Your task to perform on an android device: open app "Messages" (install if not already installed) and enter user name: "Hersey@inbox.com" and password: "facings" Image 0: 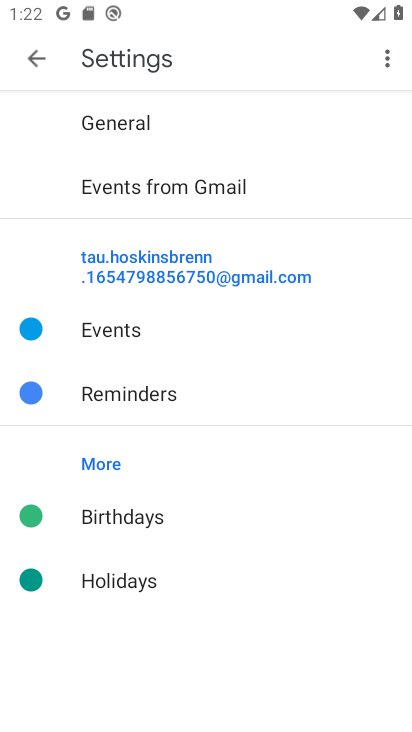
Step 0: press home button
Your task to perform on an android device: open app "Messages" (install if not already installed) and enter user name: "Hersey@inbox.com" and password: "facings" Image 1: 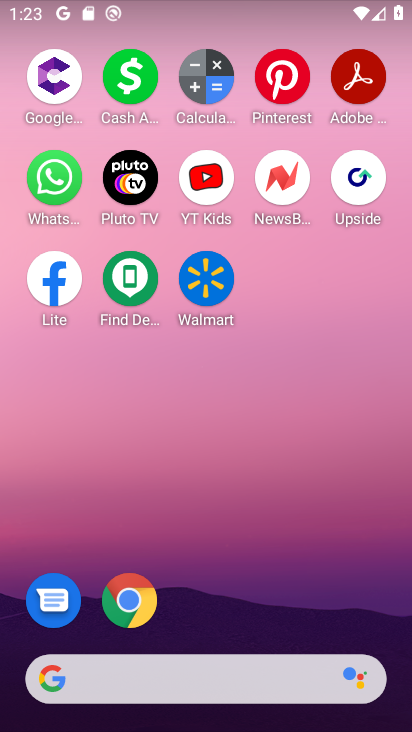
Step 1: drag from (244, 629) to (223, 88)
Your task to perform on an android device: open app "Messages" (install if not already installed) and enter user name: "Hersey@inbox.com" and password: "facings" Image 2: 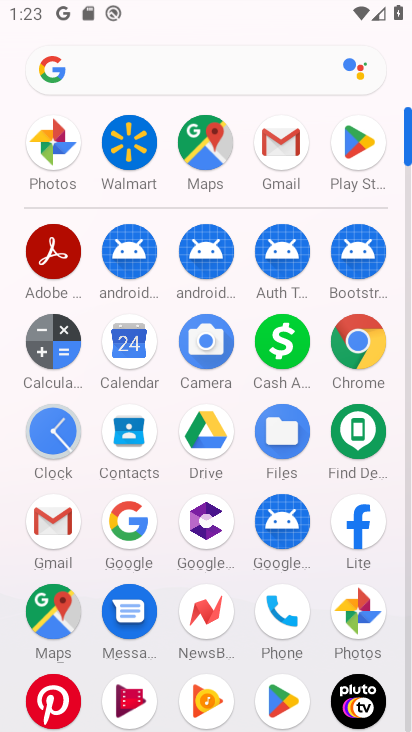
Step 2: click (360, 153)
Your task to perform on an android device: open app "Messages" (install if not already installed) and enter user name: "Hersey@inbox.com" and password: "facings" Image 3: 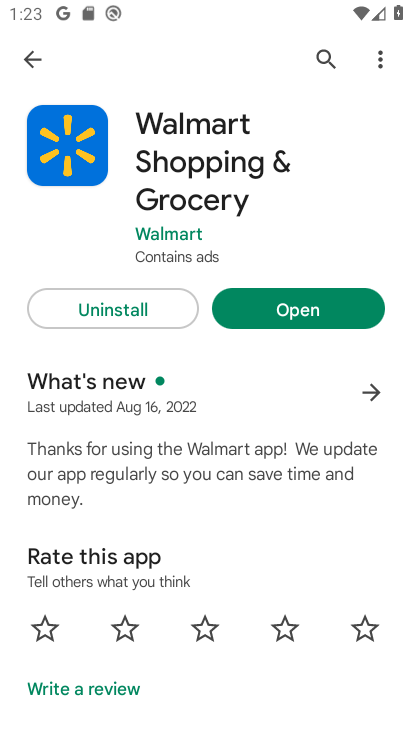
Step 3: click (322, 59)
Your task to perform on an android device: open app "Messages" (install if not already installed) and enter user name: "Hersey@inbox.com" and password: "facings" Image 4: 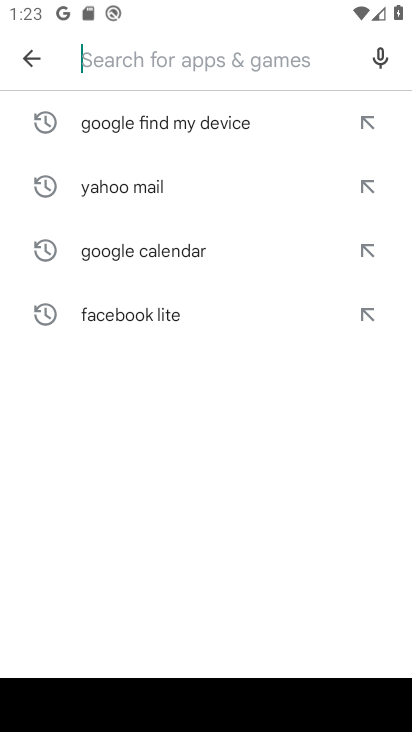
Step 4: type "Messages"
Your task to perform on an android device: open app "Messages" (install if not already installed) and enter user name: "Hersey@inbox.com" and password: "facings" Image 5: 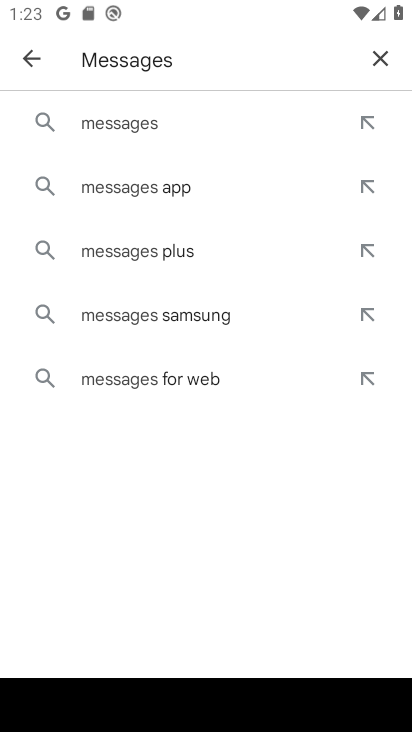
Step 5: click (120, 123)
Your task to perform on an android device: open app "Messages" (install if not already installed) and enter user name: "Hersey@inbox.com" and password: "facings" Image 6: 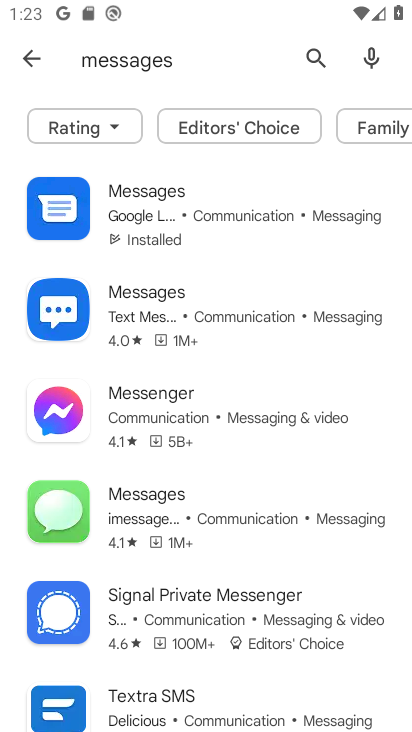
Step 6: click (140, 188)
Your task to perform on an android device: open app "Messages" (install if not already installed) and enter user name: "Hersey@inbox.com" and password: "facings" Image 7: 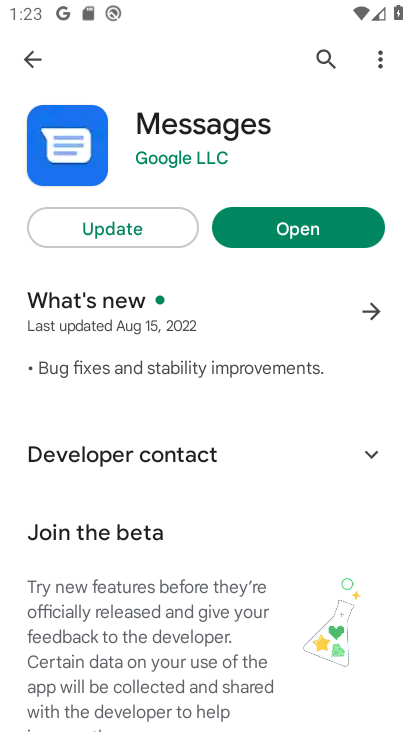
Step 7: click (339, 219)
Your task to perform on an android device: open app "Messages" (install if not already installed) and enter user name: "Hersey@inbox.com" and password: "facings" Image 8: 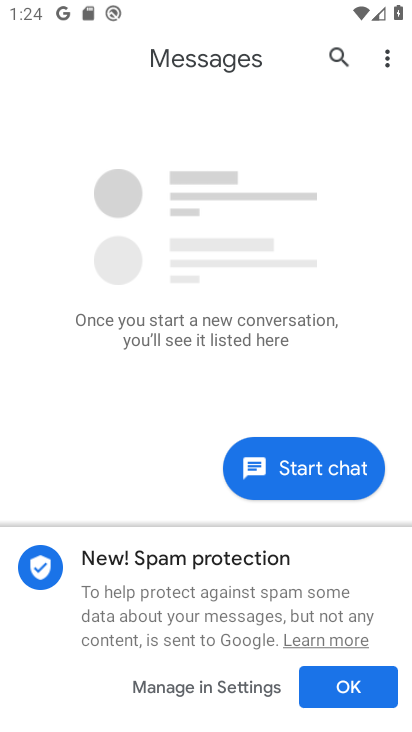
Step 8: task complete